Your task to perform on an android device: Add razer blade to the cart on costco.com, then select checkout. Image 0: 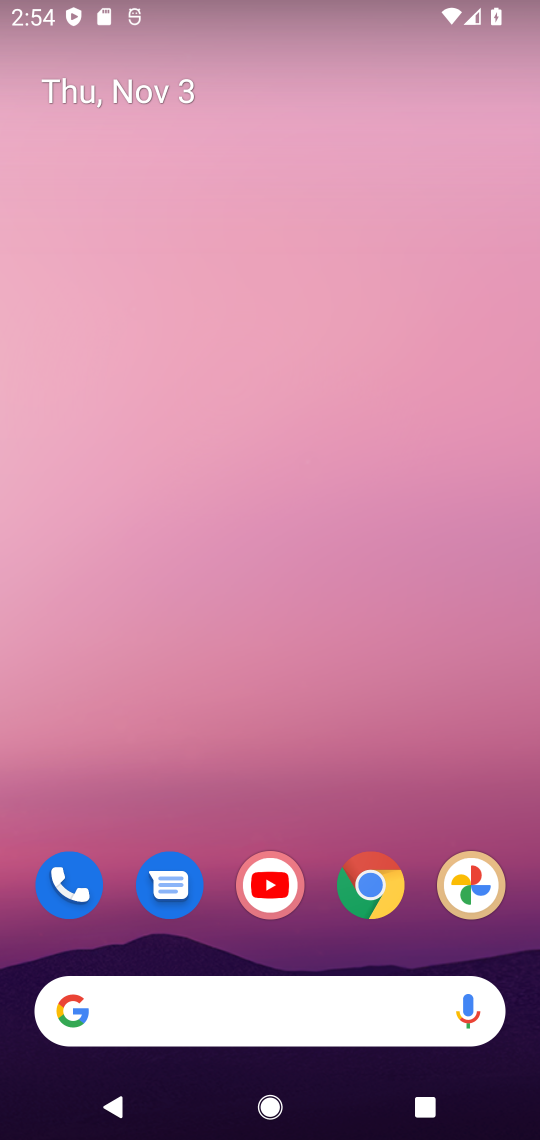
Step 0: click (362, 888)
Your task to perform on an android device: Add razer blade to the cart on costco.com, then select checkout. Image 1: 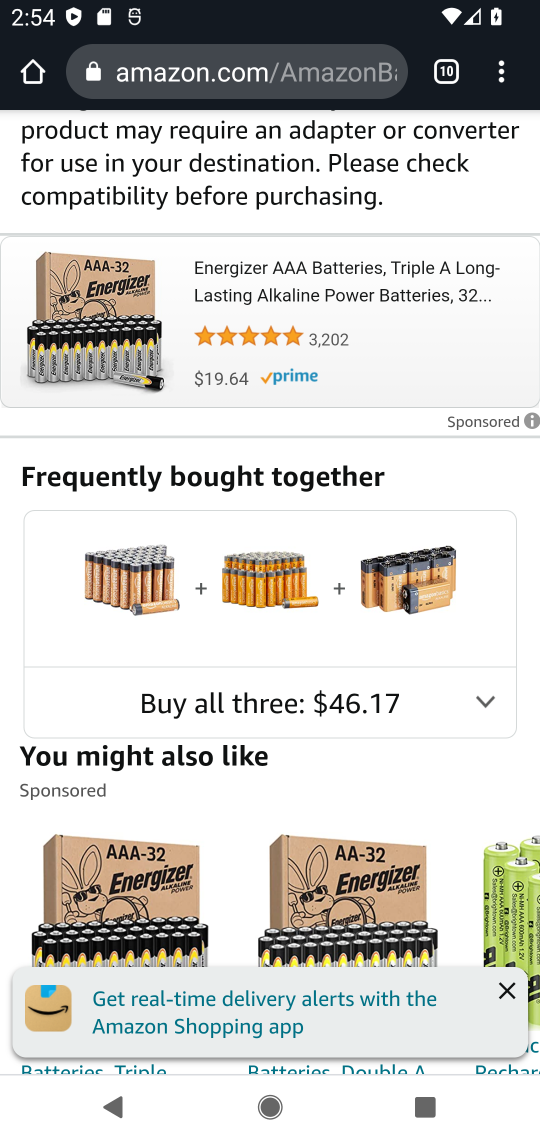
Step 1: drag from (498, 84) to (266, 248)
Your task to perform on an android device: Add razer blade to the cart on costco.com, then select checkout. Image 2: 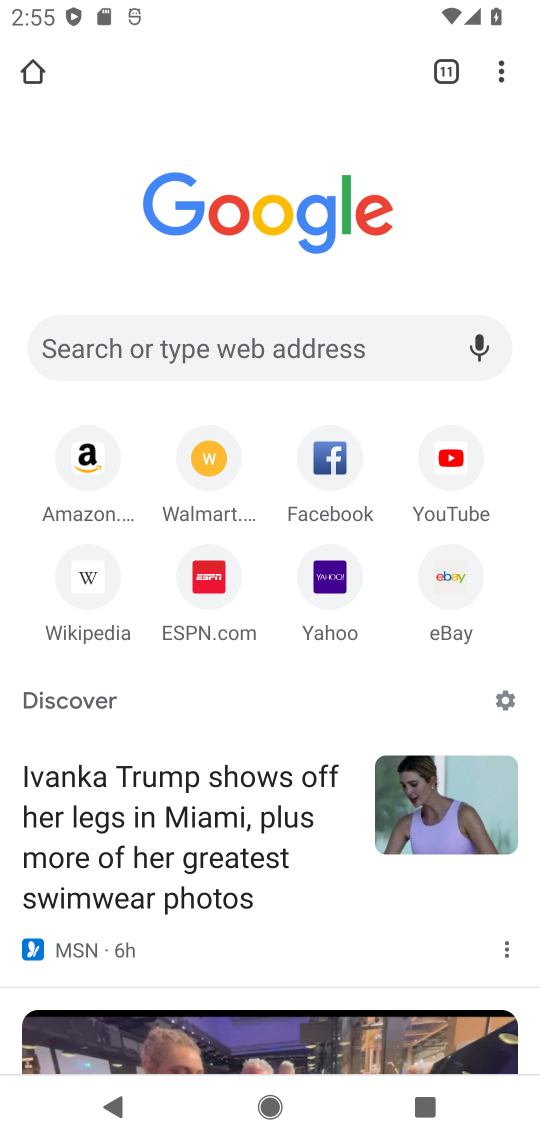
Step 2: click (390, 342)
Your task to perform on an android device: Add razer blade to the cart on costco.com, then select checkout. Image 3: 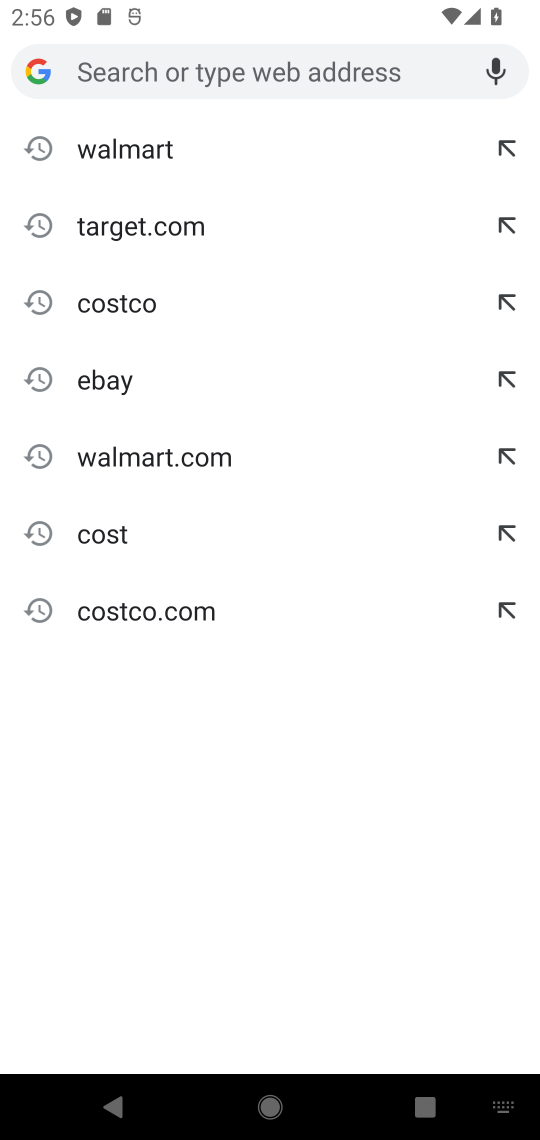
Step 3: type "costco.com"
Your task to perform on an android device: Add razer blade to the cart on costco.com, then select checkout. Image 4: 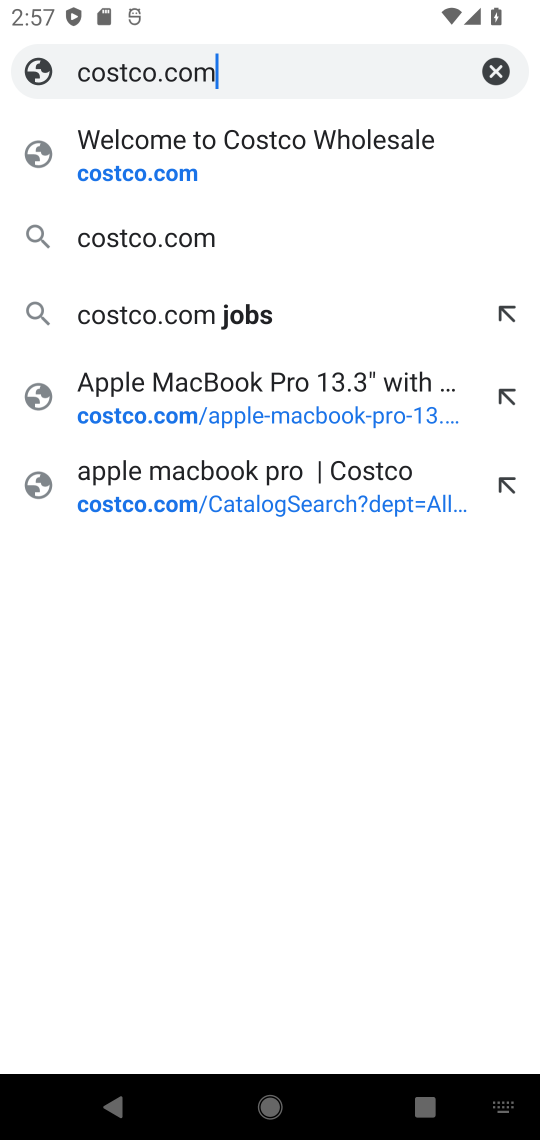
Step 4: click (164, 240)
Your task to perform on an android device: Add razer blade to the cart on costco.com, then select checkout. Image 5: 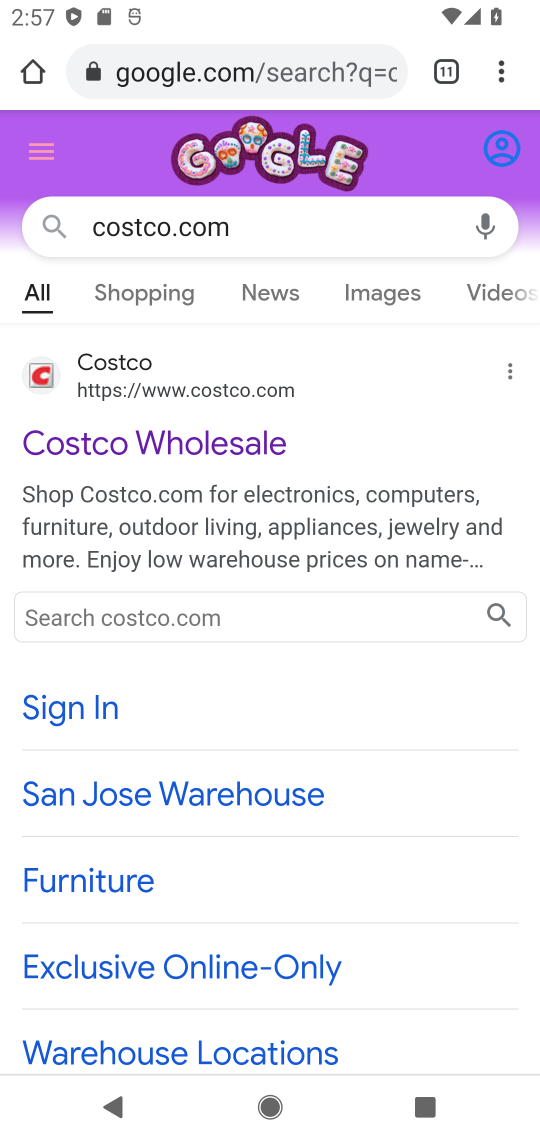
Step 5: click (185, 445)
Your task to perform on an android device: Add razer blade to the cart on costco.com, then select checkout. Image 6: 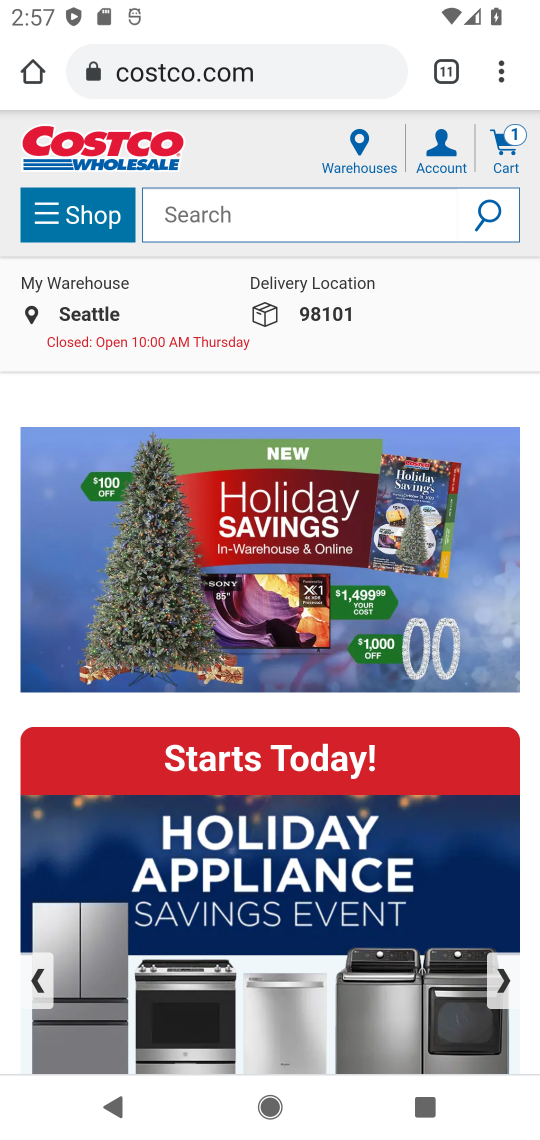
Step 6: click (284, 210)
Your task to perform on an android device: Add razer blade to the cart on costco.com, then select checkout. Image 7: 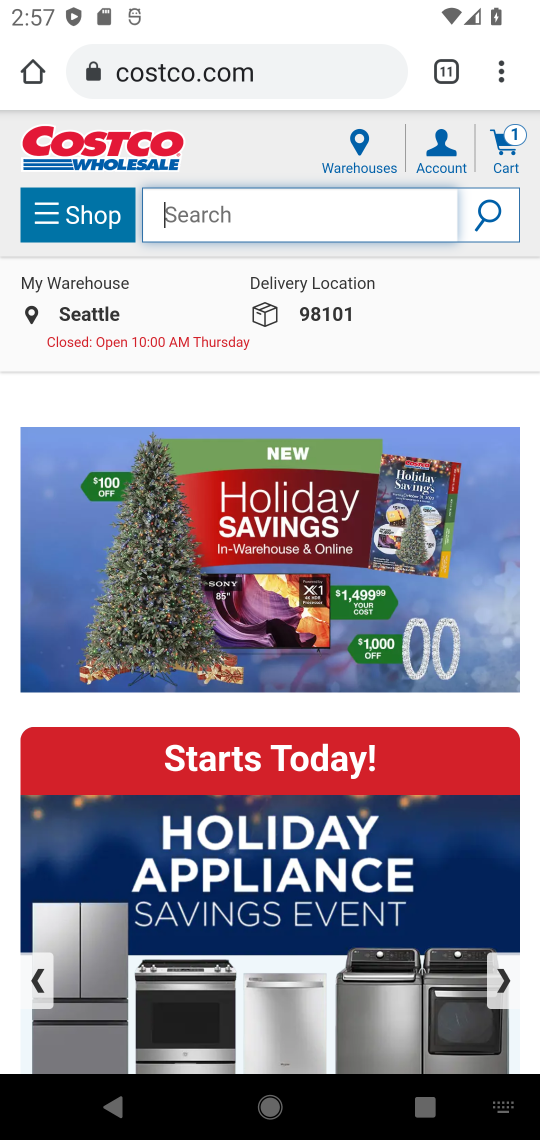
Step 7: click (284, 210)
Your task to perform on an android device: Add razer blade to the cart on costco.com, then select checkout. Image 8: 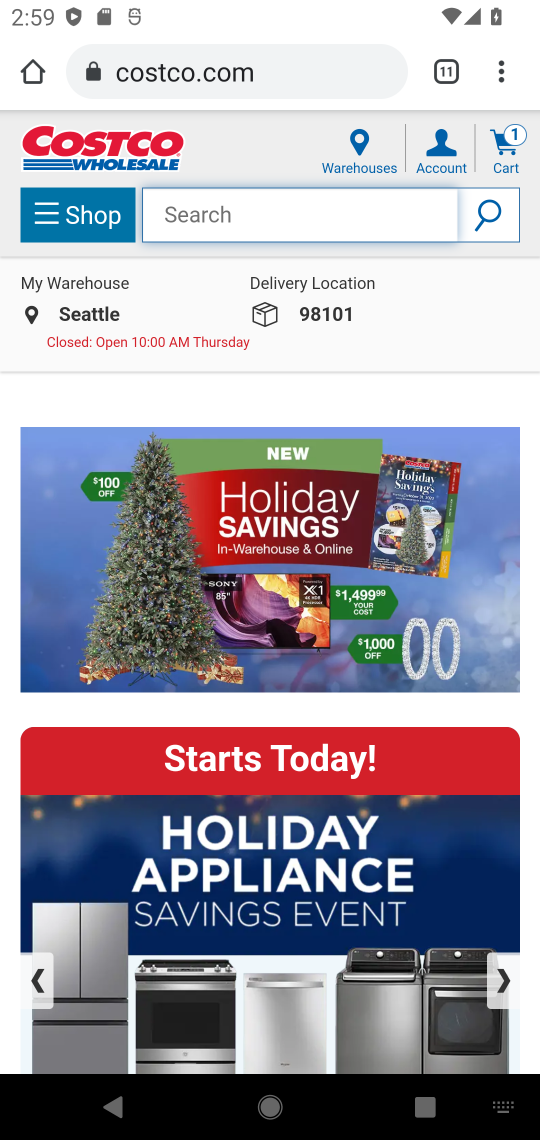
Step 8: type "razer blade "
Your task to perform on an android device: Add razer blade to the cart on costco.com, then select checkout. Image 9: 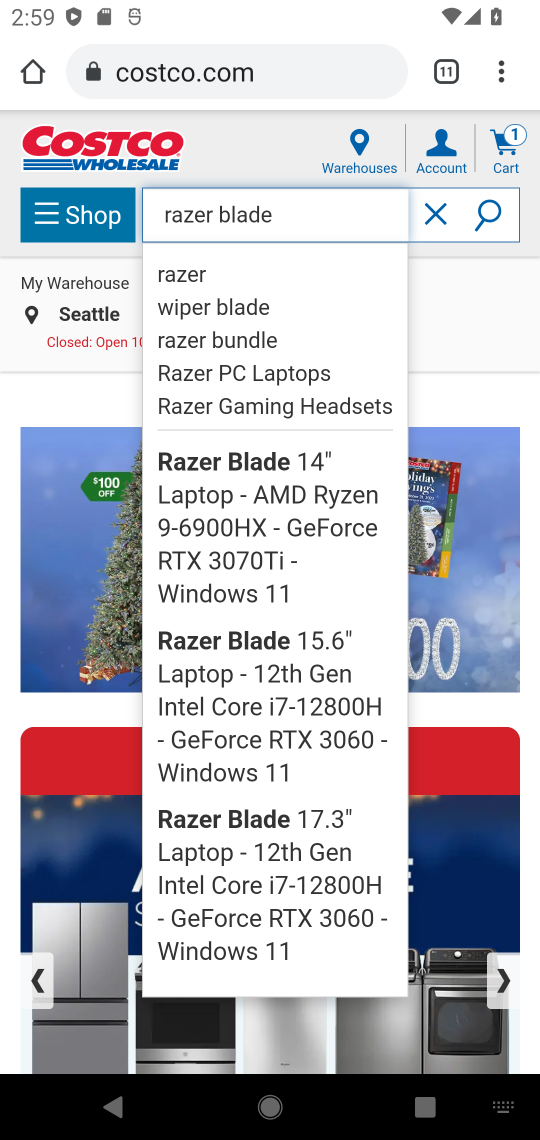
Step 9: click (196, 273)
Your task to perform on an android device: Add razer blade to the cart on costco.com, then select checkout. Image 10: 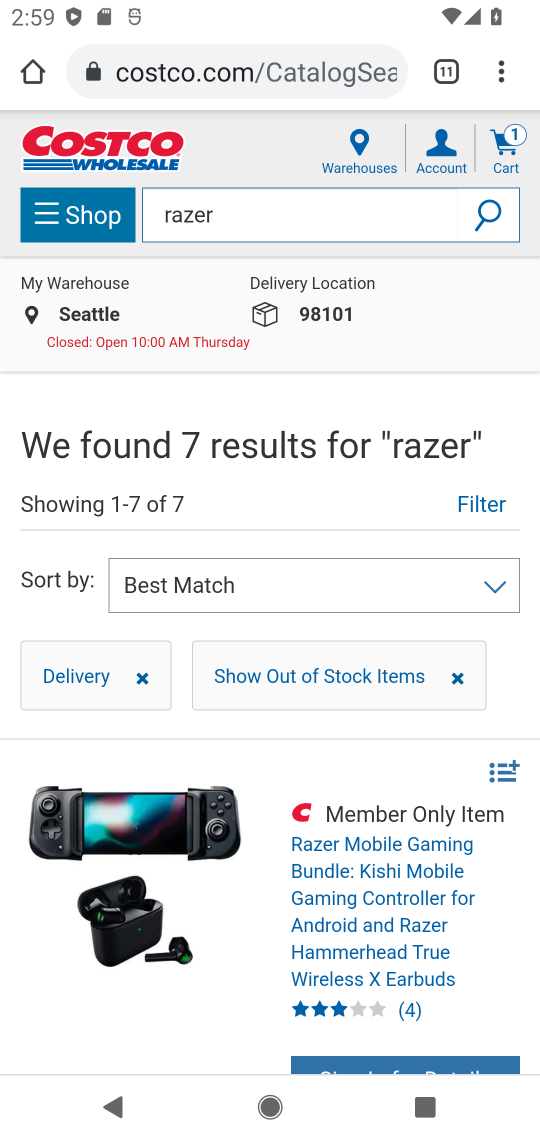
Step 10: drag from (310, 728) to (263, 498)
Your task to perform on an android device: Add razer blade to the cart on costco.com, then select checkout. Image 11: 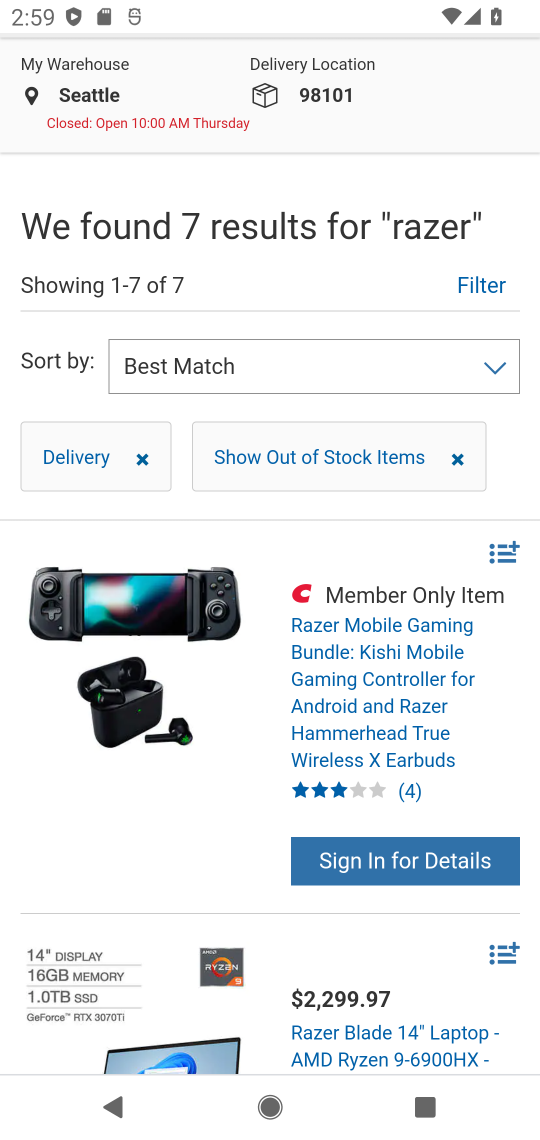
Step 11: drag from (403, 820) to (403, 644)
Your task to perform on an android device: Add razer blade to the cart on costco.com, then select checkout. Image 12: 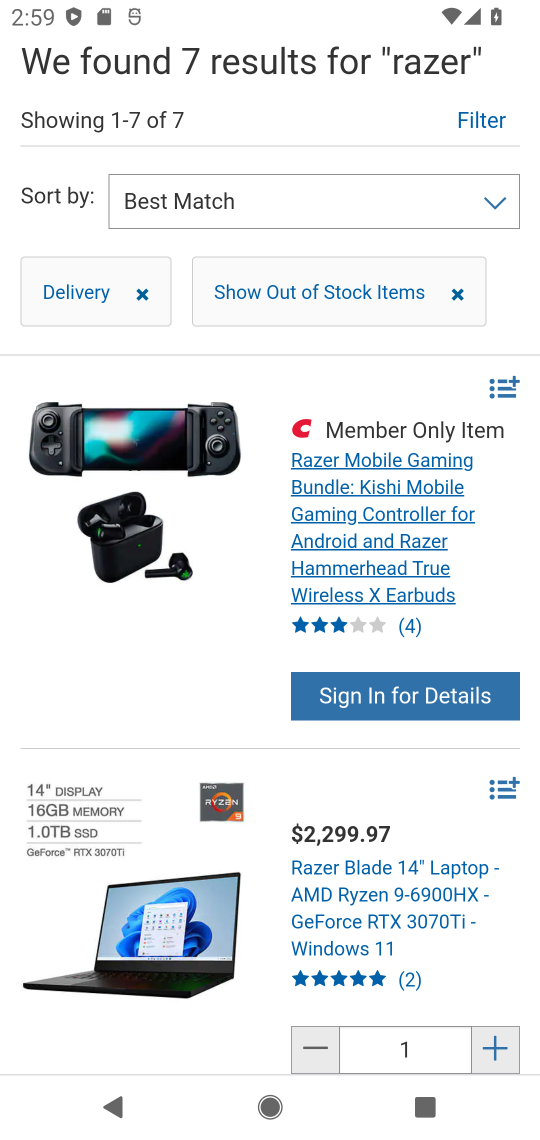
Step 12: click (411, 889)
Your task to perform on an android device: Add razer blade to the cart on costco.com, then select checkout. Image 13: 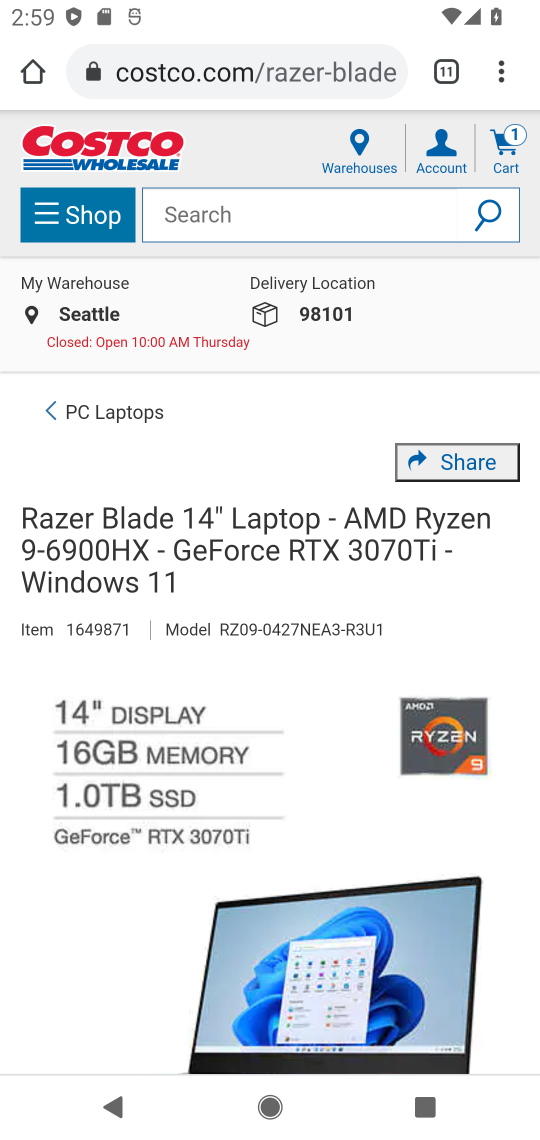
Step 13: drag from (358, 933) to (364, 603)
Your task to perform on an android device: Add razer blade to the cart on costco.com, then select checkout. Image 14: 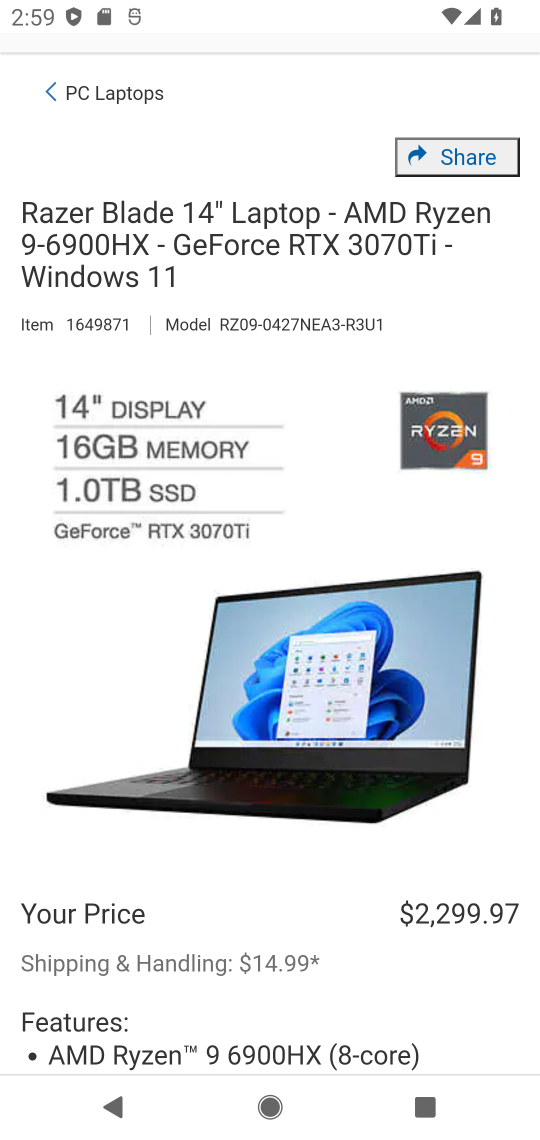
Step 14: drag from (329, 990) to (289, 522)
Your task to perform on an android device: Add razer blade to the cart on costco.com, then select checkout. Image 15: 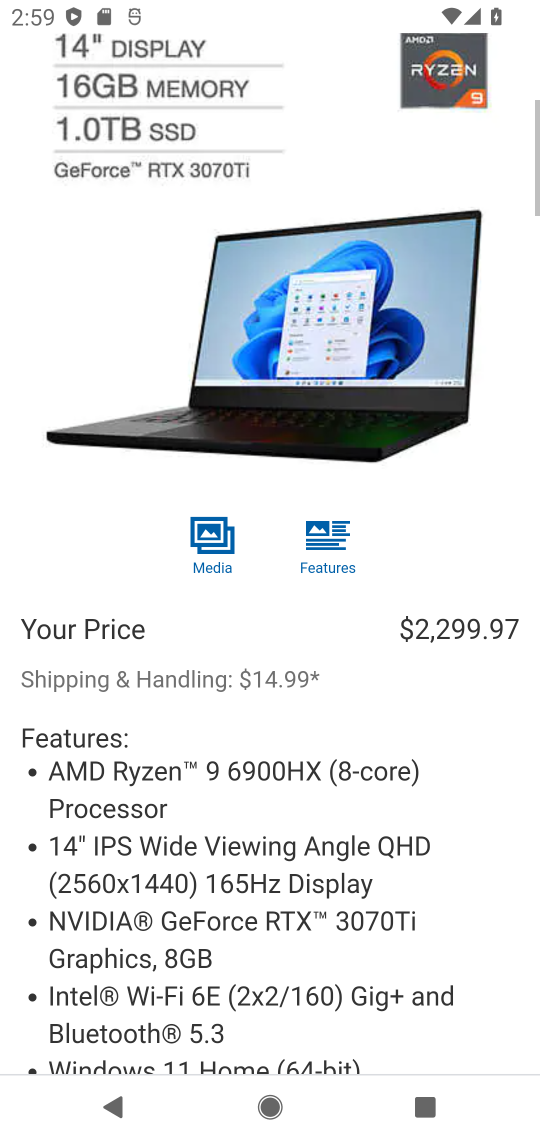
Step 15: drag from (303, 964) to (289, 610)
Your task to perform on an android device: Add razer blade to the cart on costco.com, then select checkout. Image 16: 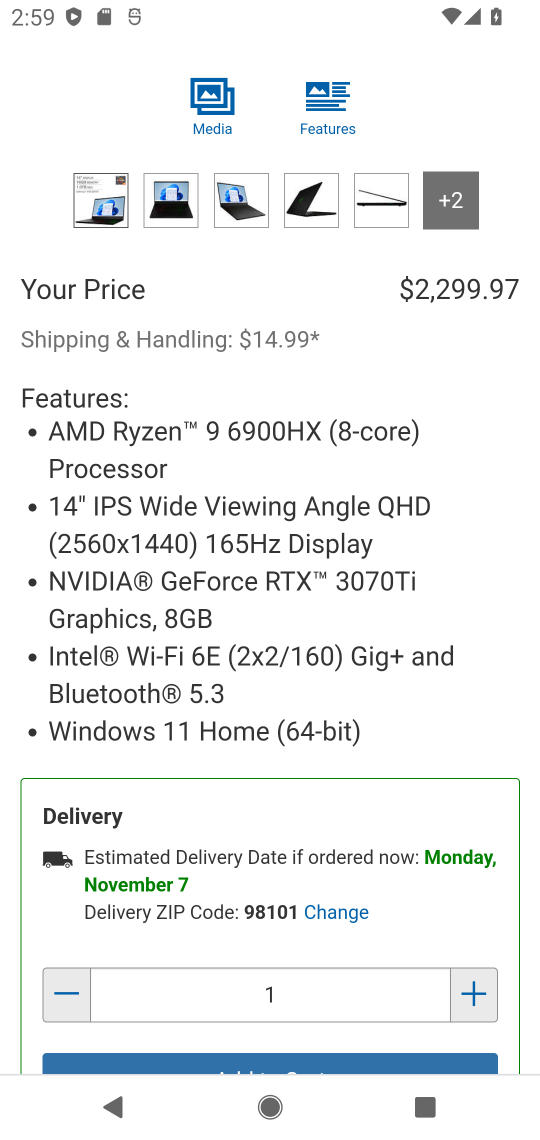
Step 16: drag from (235, 934) to (224, 478)
Your task to perform on an android device: Add razer blade to the cart on costco.com, then select checkout. Image 17: 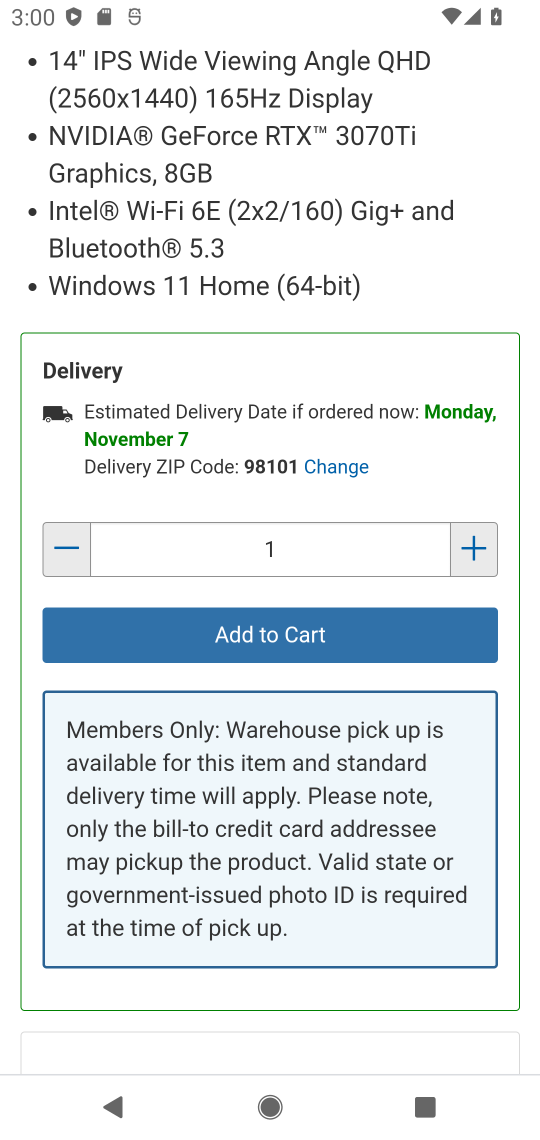
Step 17: click (237, 635)
Your task to perform on an android device: Add razer blade to the cart on costco.com, then select checkout. Image 18: 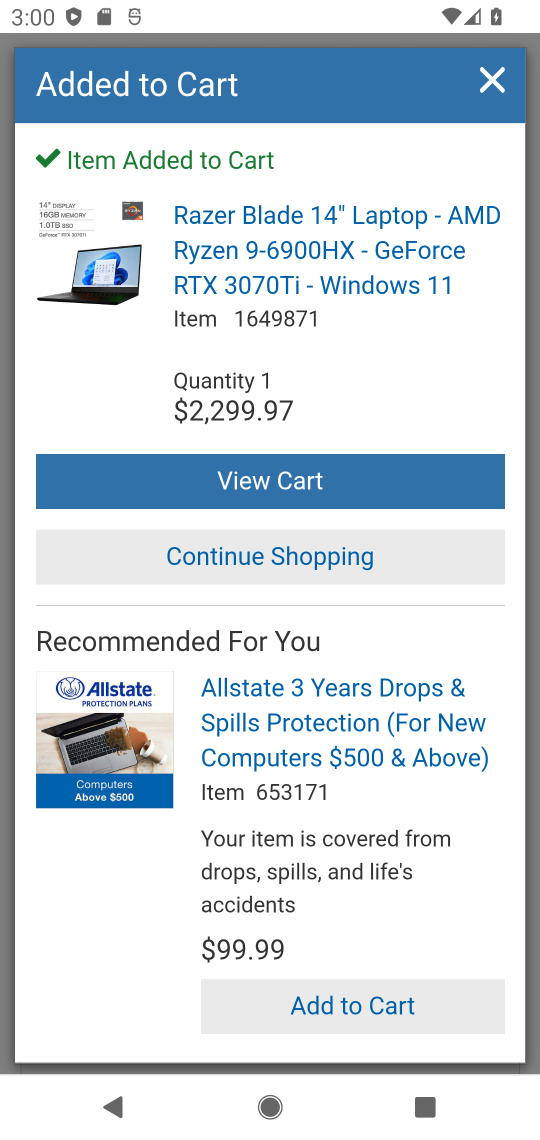
Step 18: click (488, 81)
Your task to perform on an android device: Add razer blade to the cart on costco.com, then select checkout. Image 19: 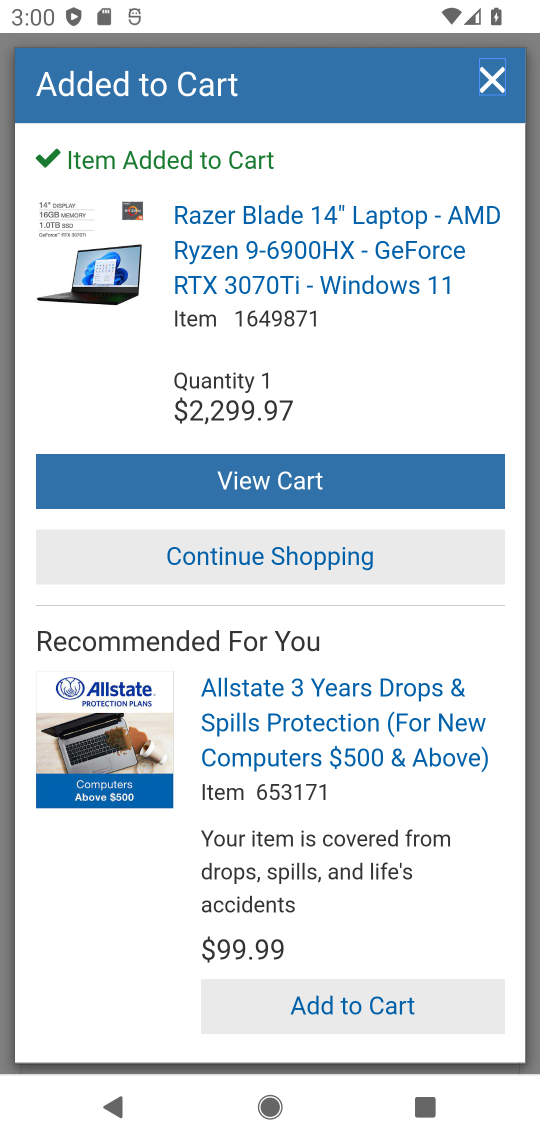
Step 19: click (494, 81)
Your task to perform on an android device: Add razer blade to the cart on costco.com, then select checkout. Image 20: 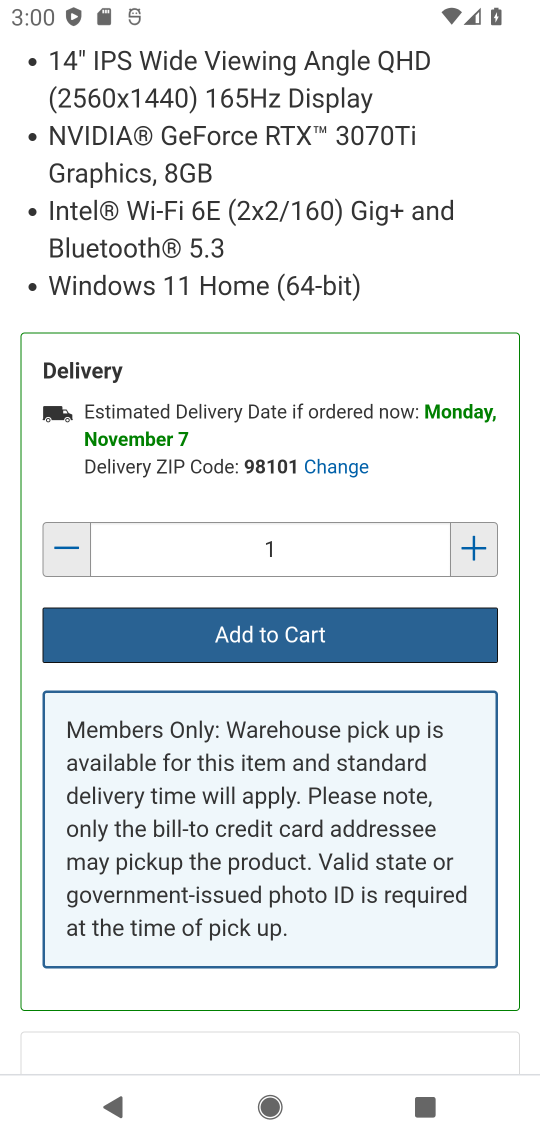
Step 20: drag from (360, 247) to (361, 780)
Your task to perform on an android device: Add razer blade to the cart on costco.com, then select checkout. Image 21: 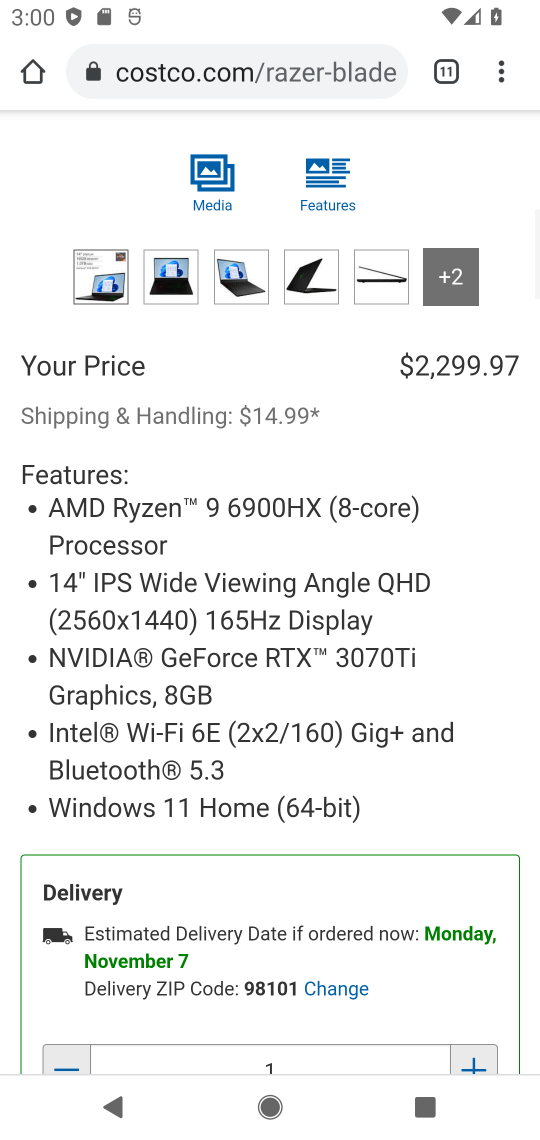
Step 21: drag from (294, 226) to (327, 797)
Your task to perform on an android device: Add razer blade to the cart on costco.com, then select checkout. Image 22: 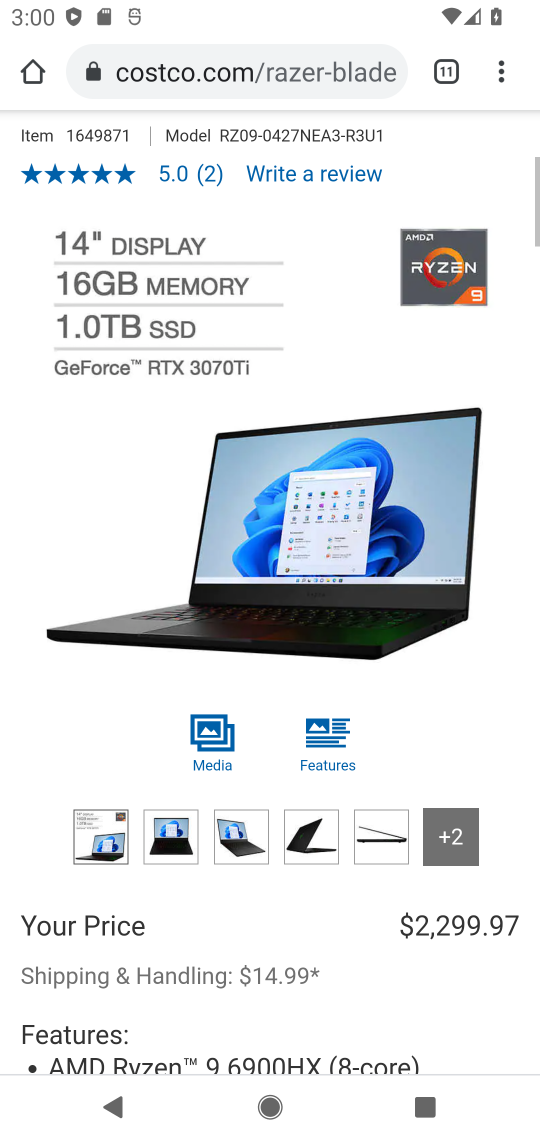
Step 22: drag from (363, 194) to (395, 819)
Your task to perform on an android device: Add razer blade to the cart on costco.com, then select checkout. Image 23: 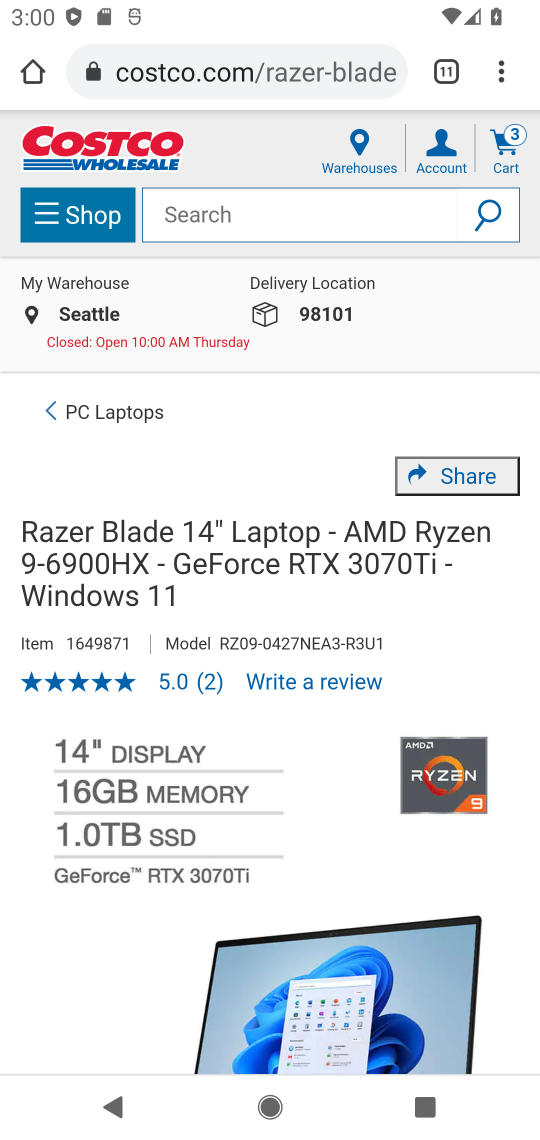
Step 23: click (498, 149)
Your task to perform on an android device: Add razer blade to the cart on costco.com, then select checkout. Image 24: 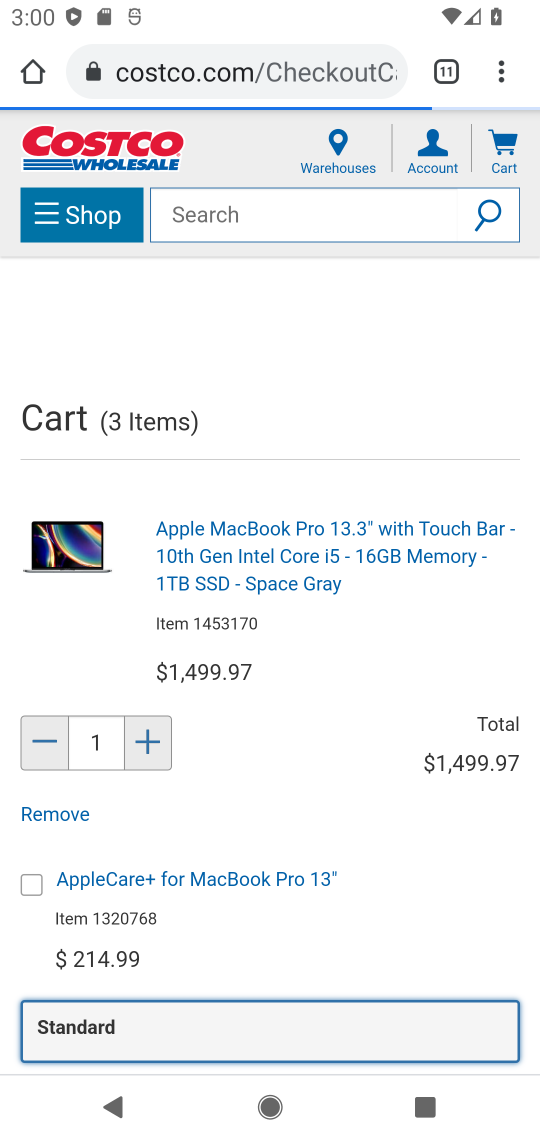
Step 24: task complete